Your task to perform on an android device: Go to wifi settings Image 0: 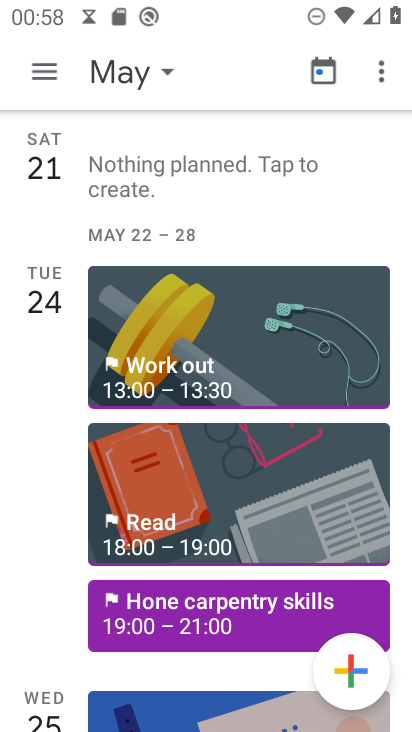
Step 0: press home button
Your task to perform on an android device: Go to wifi settings Image 1: 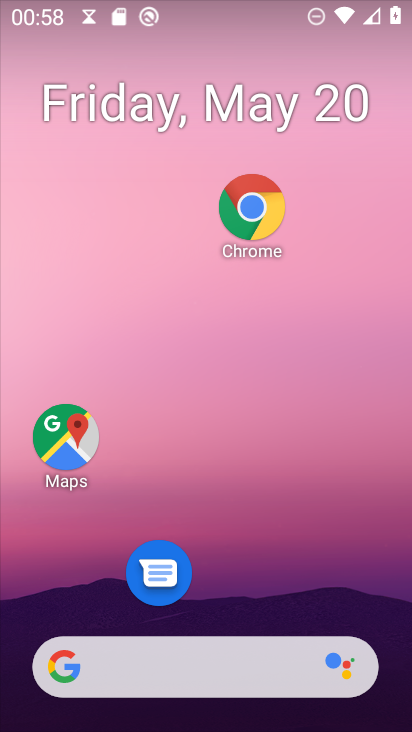
Step 1: drag from (297, 594) to (318, 26)
Your task to perform on an android device: Go to wifi settings Image 2: 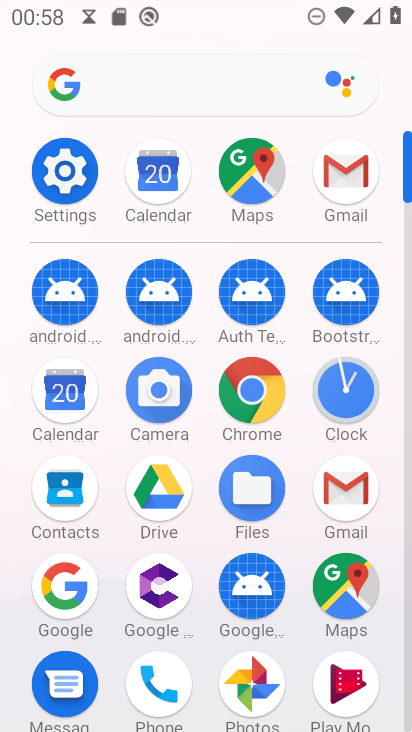
Step 2: click (56, 168)
Your task to perform on an android device: Go to wifi settings Image 3: 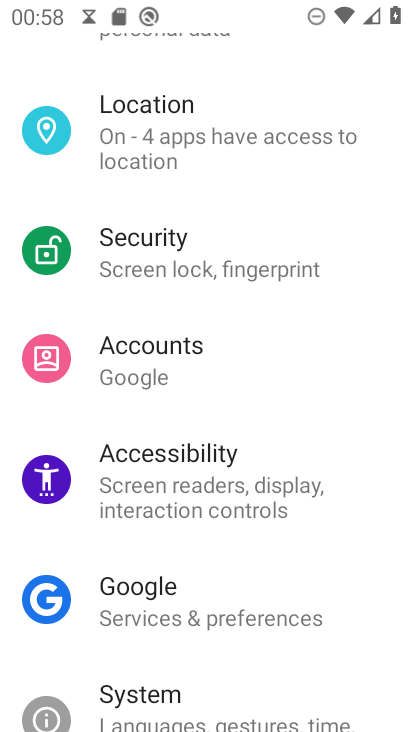
Step 3: drag from (189, 166) to (193, 664)
Your task to perform on an android device: Go to wifi settings Image 4: 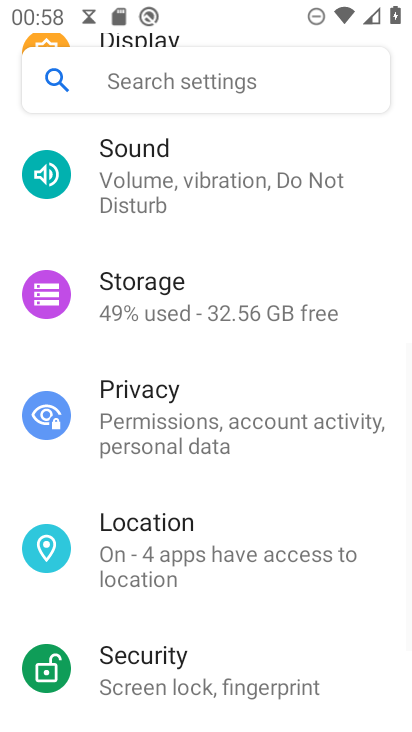
Step 4: drag from (286, 262) to (243, 554)
Your task to perform on an android device: Go to wifi settings Image 5: 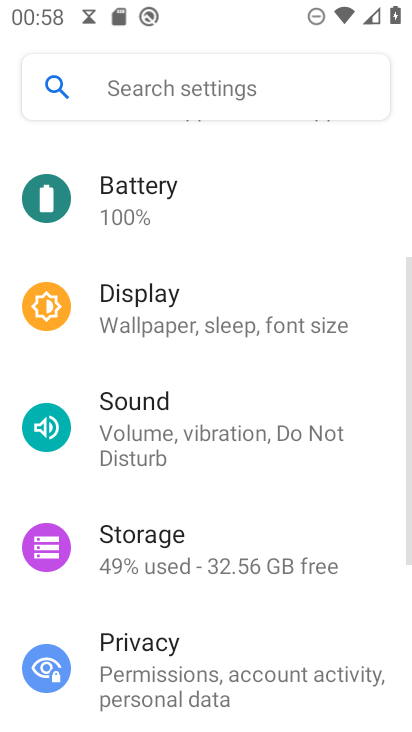
Step 5: drag from (149, 243) to (102, 587)
Your task to perform on an android device: Go to wifi settings Image 6: 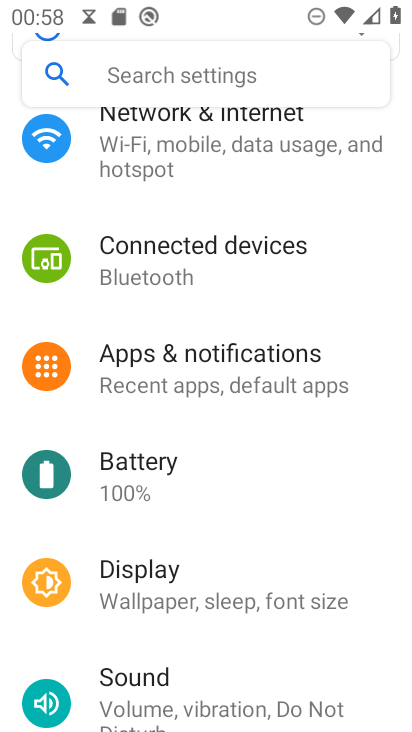
Step 6: click (151, 154)
Your task to perform on an android device: Go to wifi settings Image 7: 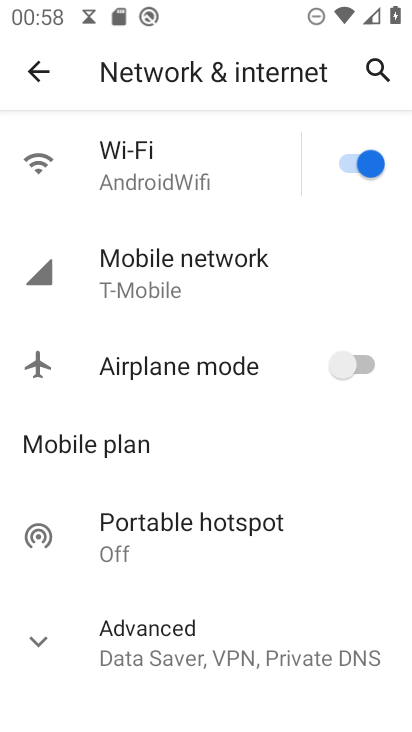
Step 7: click (153, 176)
Your task to perform on an android device: Go to wifi settings Image 8: 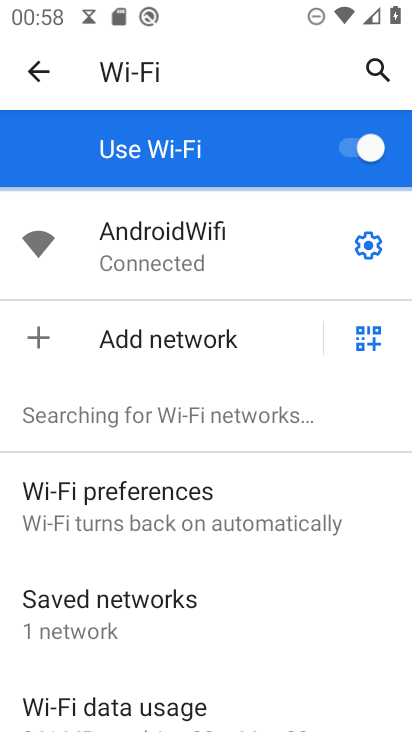
Step 8: task complete